Your task to perform on an android device: Show the shopping cart on walmart.com. Add "usb-c" to the cart on walmart.com, then select checkout. Image 0: 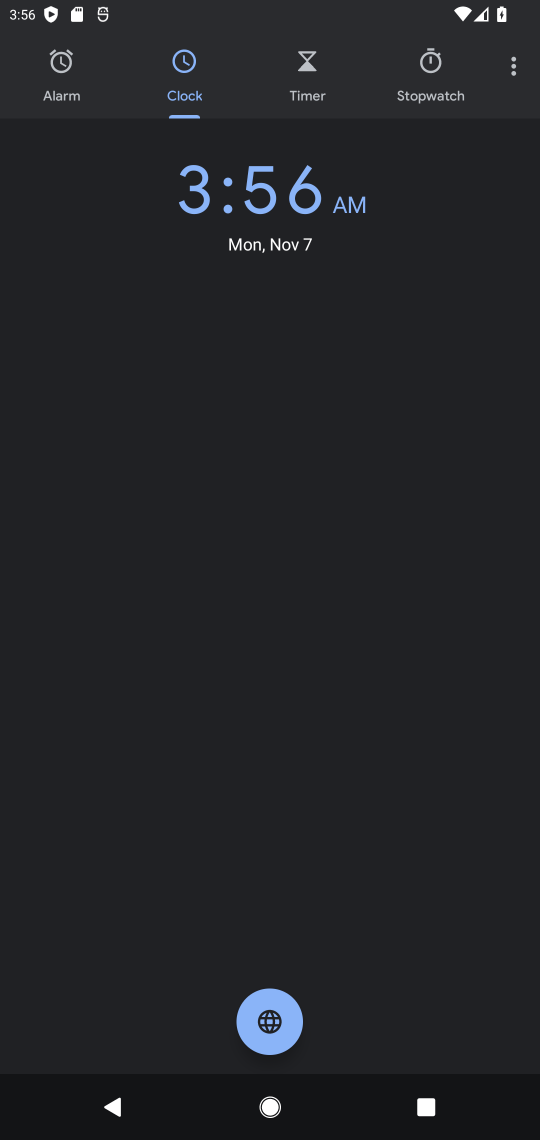
Step 0: press home button
Your task to perform on an android device: Show the shopping cart on walmart.com. Add "usb-c" to the cart on walmart.com, then select checkout. Image 1: 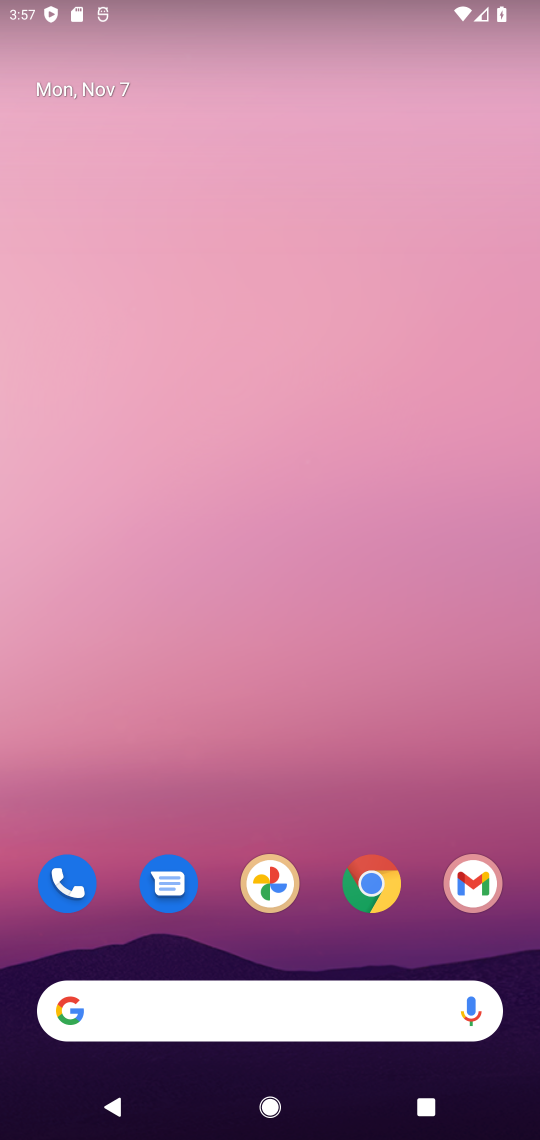
Step 1: click (363, 886)
Your task to perform on an android device: Show the shopping cart on walmart.com. Add "usb-c" to the cart on walmart.com, then select checkout. Image 2: 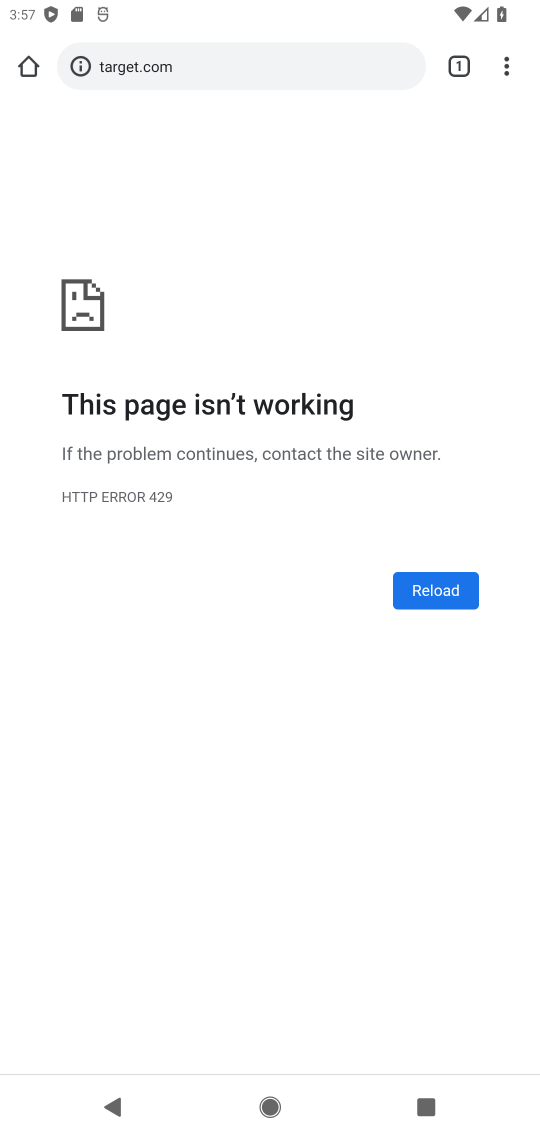
Step 2: click (306, 66)
Your task to perform on an android device: Show the shopping cart on walmart.com. Add "usb-c" to the cart on walmart.com, then select checkout. Image 3: 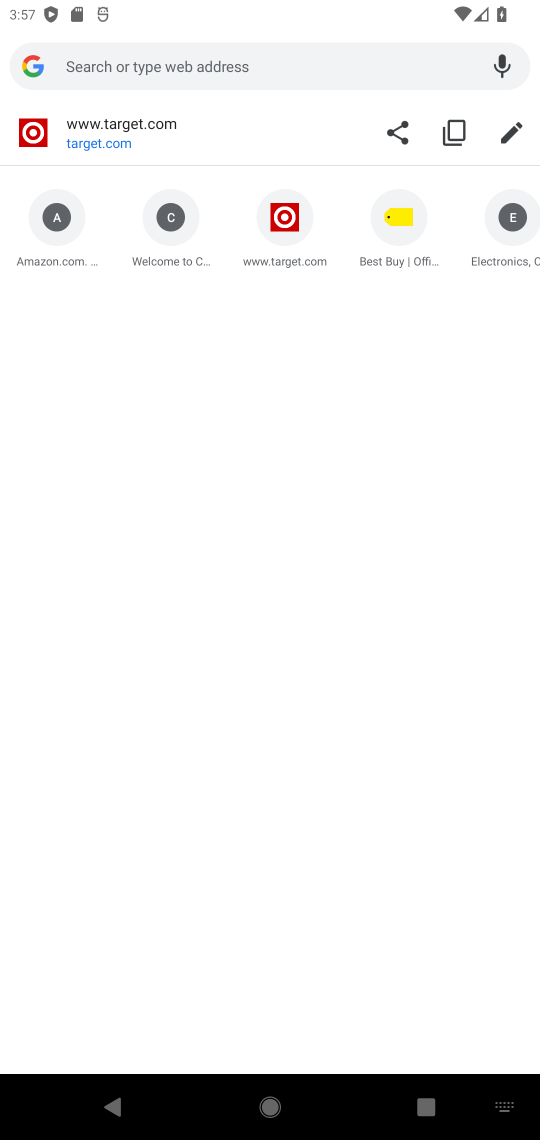
Step 3: type " walmart"
Your task to perform on an android device: Show the shopping cart on walmart.com. Add "usb-c" to the cart on walmart.com, then select checkout. Image 4: 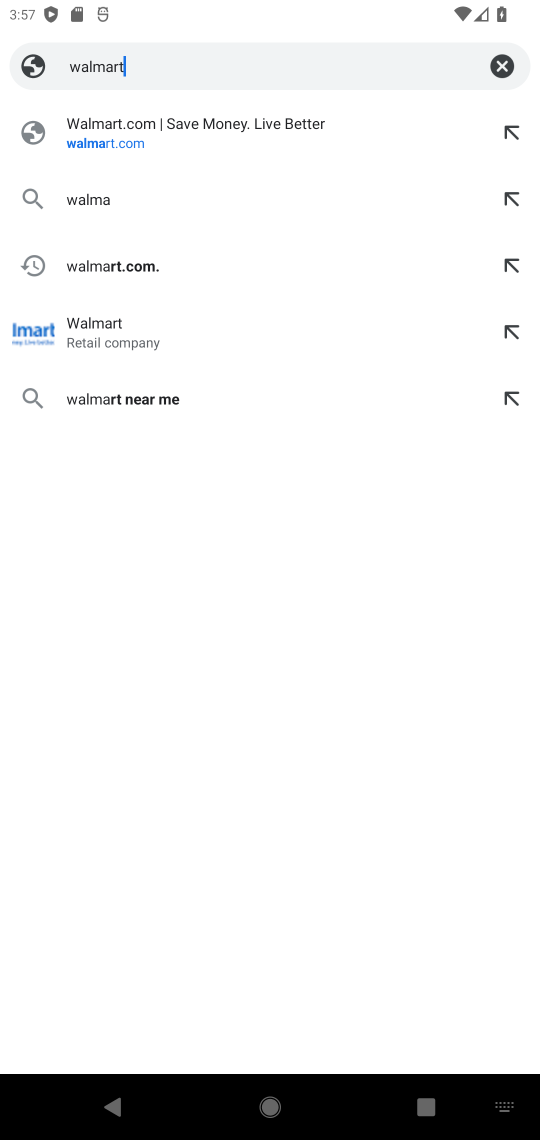
Step 4: press enter
Your task to perform on an android device: Show the shopping cart on walmart.com. Add "usb-c" to the cart on walmart.com, then select checkout. Image 5: 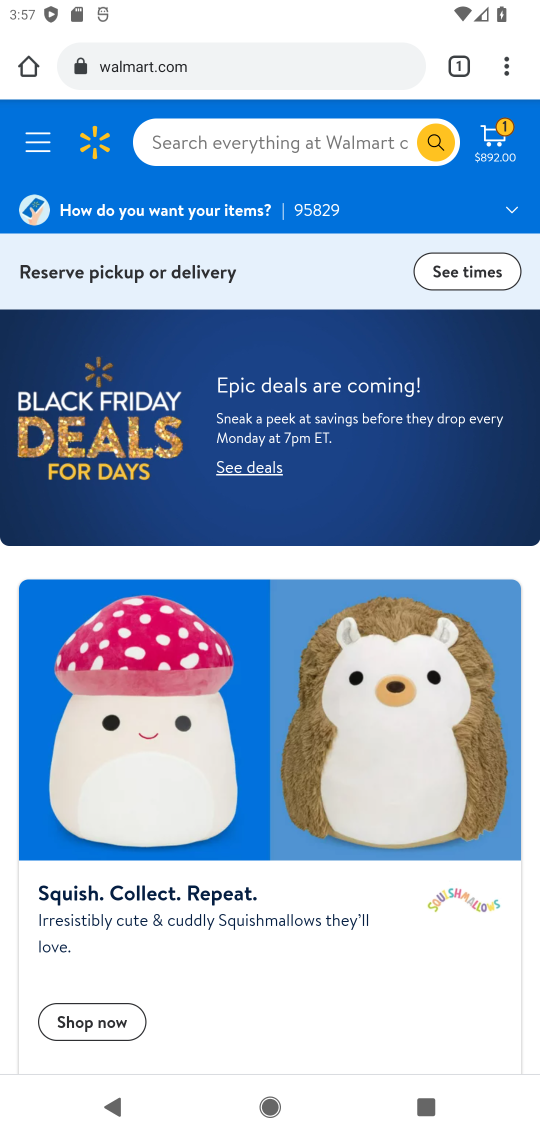
Step 5: click (235, 139)
Your task to perform on an android device: Show the shopping cart on walmart.com. Add "usb-c" to the cart on walmart.com, then select checkout. Image 6: 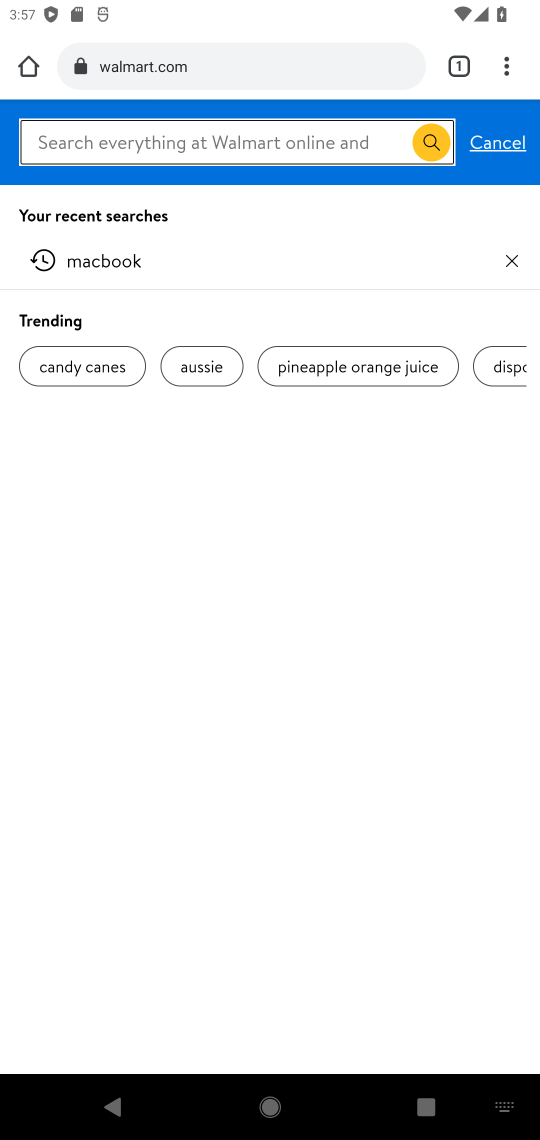
Step 6: type "usb-c"
Your task to perform on an android device: Show the shopping cart on walmart.com. Add "usb-c" to the cart on walmart.com, then select checkout. Image 7: 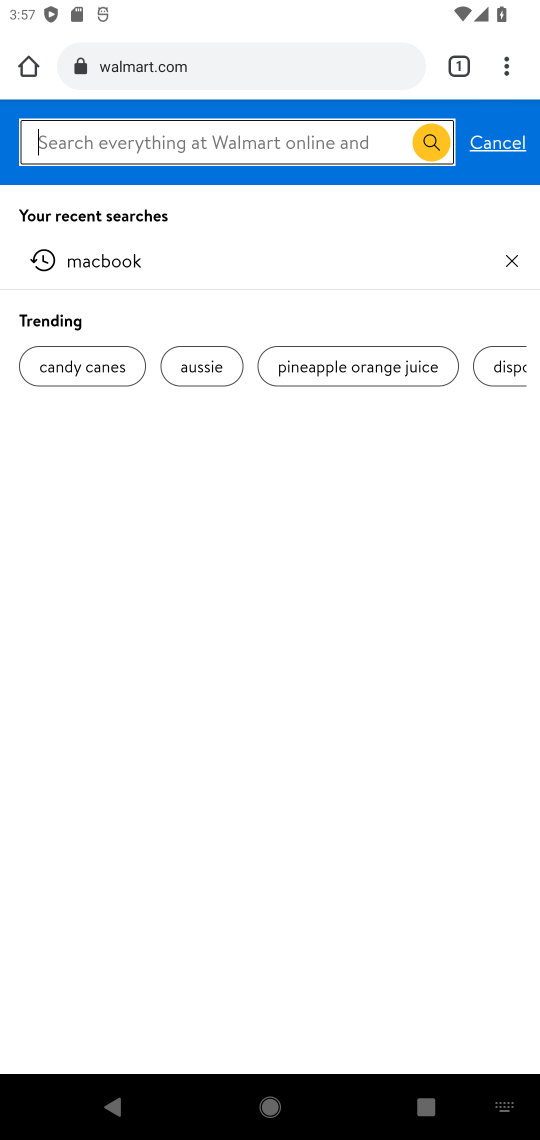
Step 7: press enter
Your task to perform on an android device: Show the shopping cart on walmart.com. Add "usb-c" to the cart on walmart.com, then select checkout. Image 8: 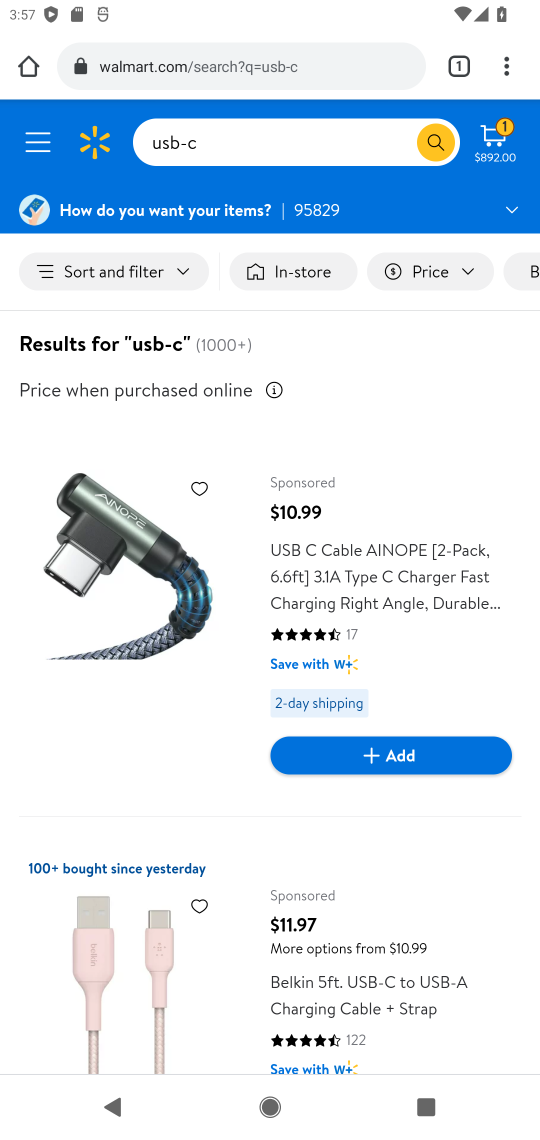
Step 8: click (400, 756)
Your task to perform on an android device: Show the shopping cart on walmart.com. Add "usb-c" to the cart on walmart.com, then select checkout. Image 9: 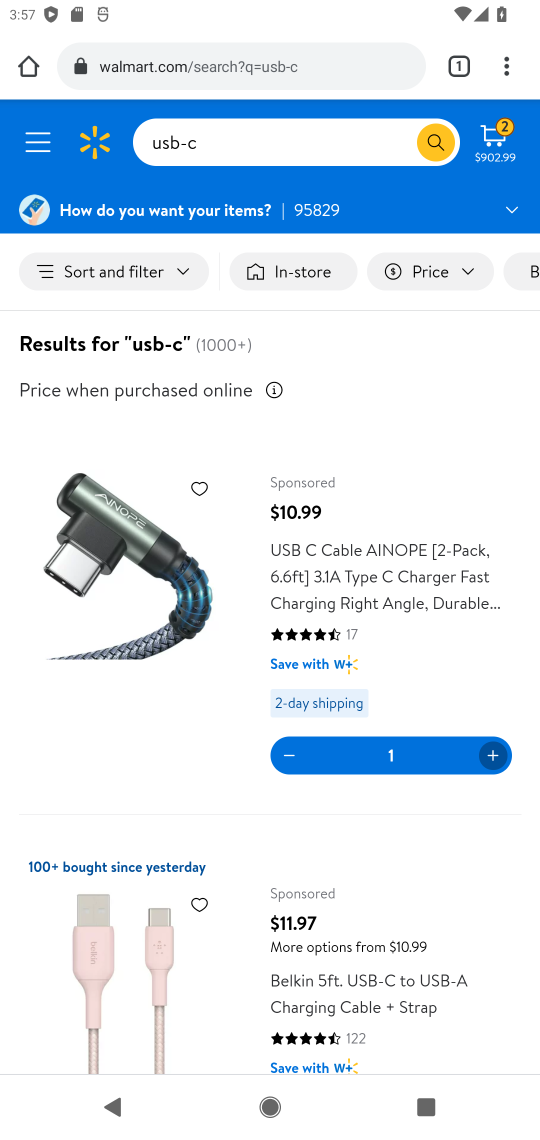
Step 9: click (491, 135)
Your task to perform on an android device: Show the shopping cart on walmart.com. Add "usb-c" to the cart on walmart.com, then select checkout. Image 10: 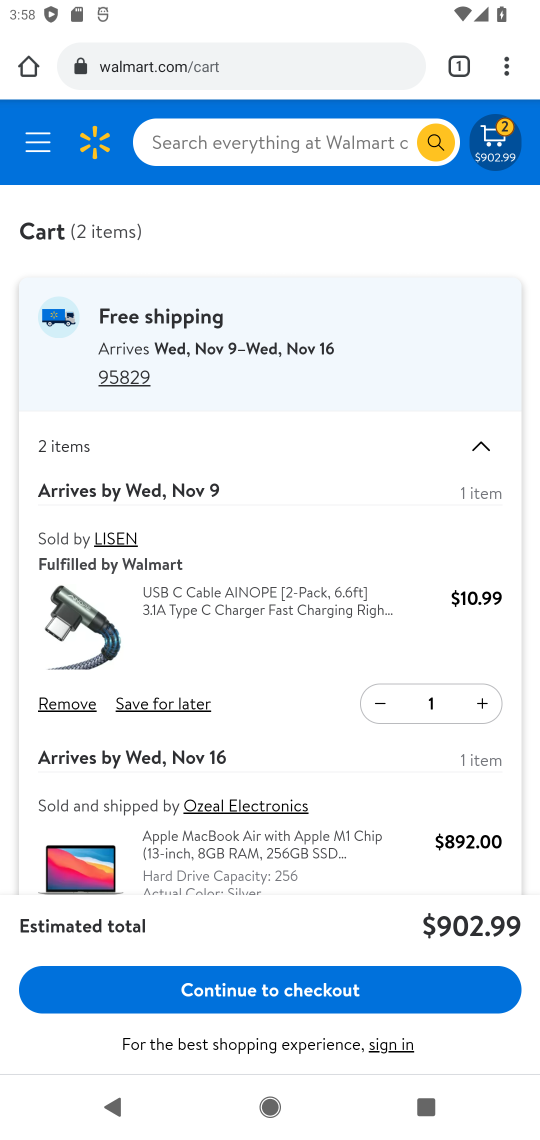
Step 10: drag from (326, 822) to (394, 558)
Your task to perform on an android device: Show the shopping cart on walmart.com. Add "usb-c" to the cart on walmart.com, then select checkout. Image 11: 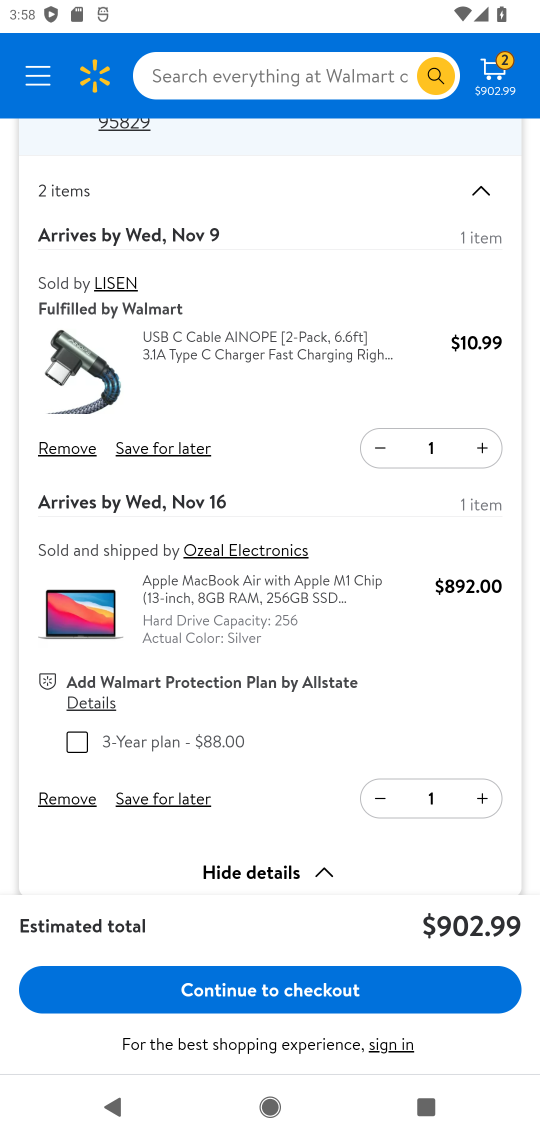
Step 11: click (81, 797)
Your task to perform on an android device: Show the shopping cart on walmart.com. Add "usb-c" to the cart on walmart.com, then select checkout. Image 12: 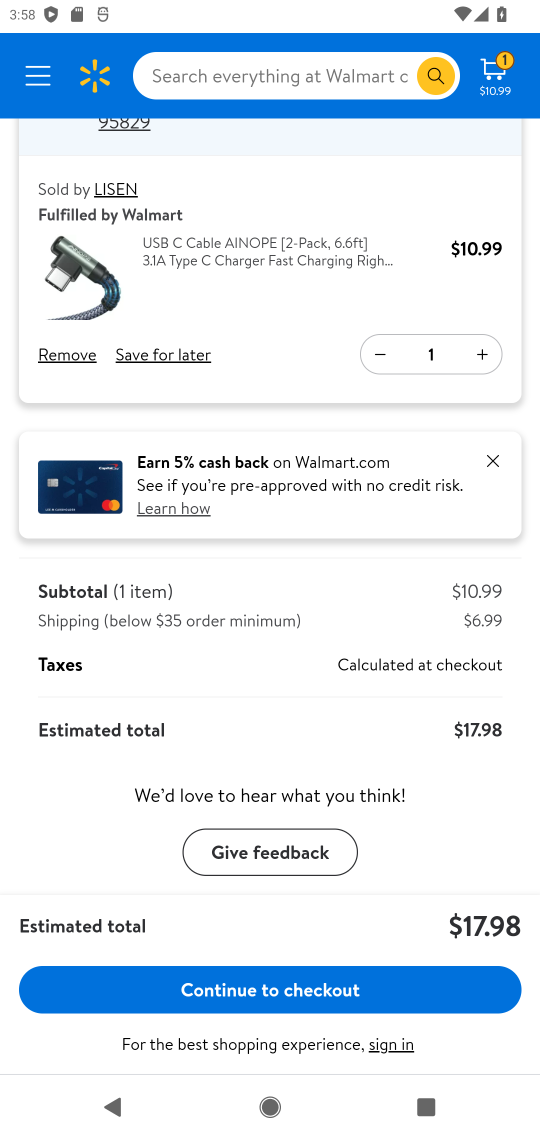
Step 12: drag from (249, 291) to (306, 733)
Your task to perform on an android device: Show the shopping cart on walmart.com. Add "usb-c" to the cart on walmart.com, then select checkout. Image 13: 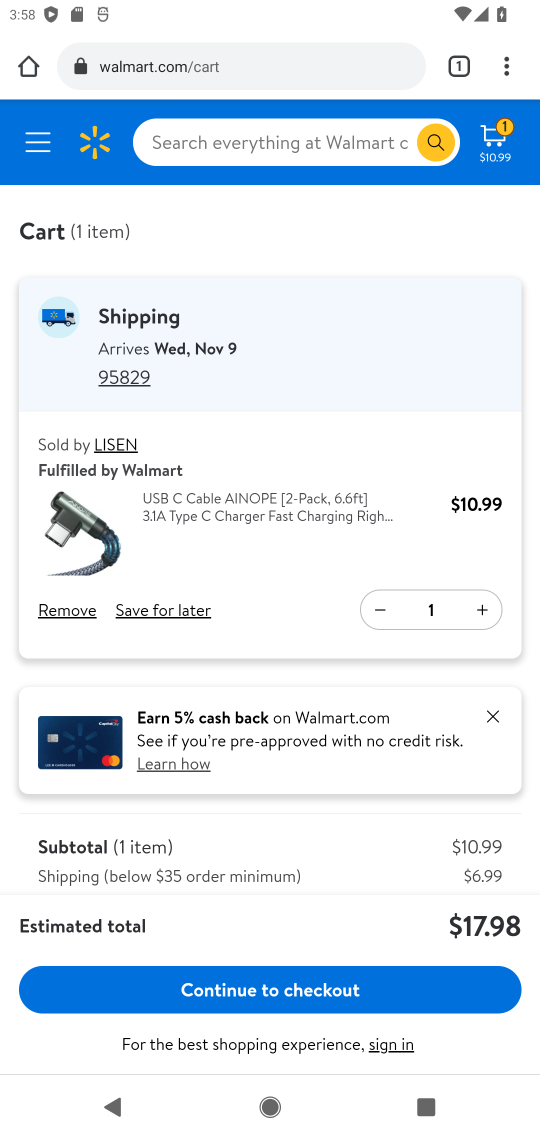
Step 13: click (345, 986)
Your task to perform on an android device: Show the shopping cart on walmart.com. Add "usb-c" to the cart on walmart.com, then select checkout. Image 14: 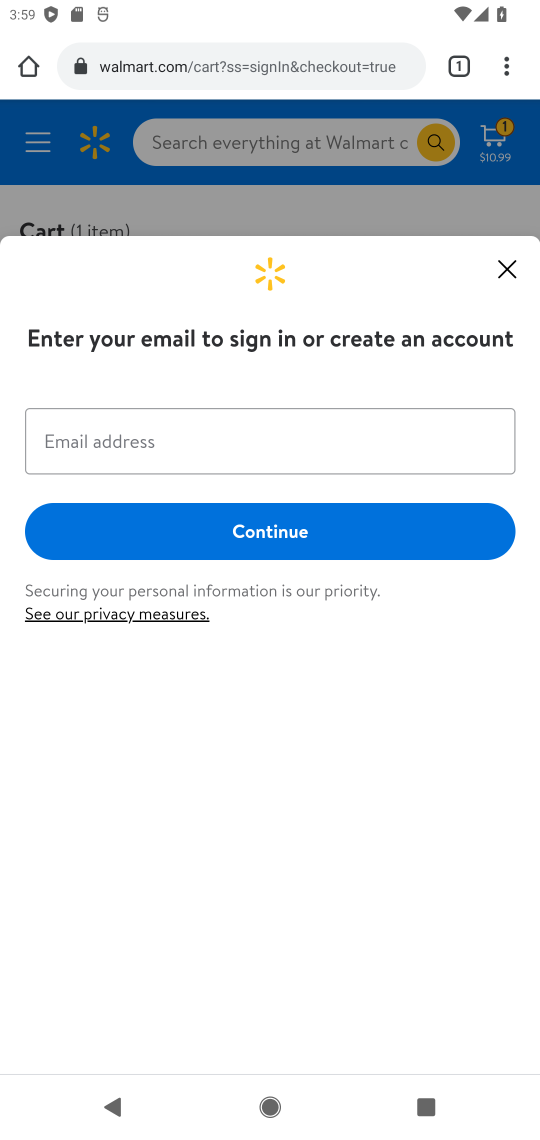
Step 14: task complete